Your task to perform on an android device: change text size in settings app Image 0: 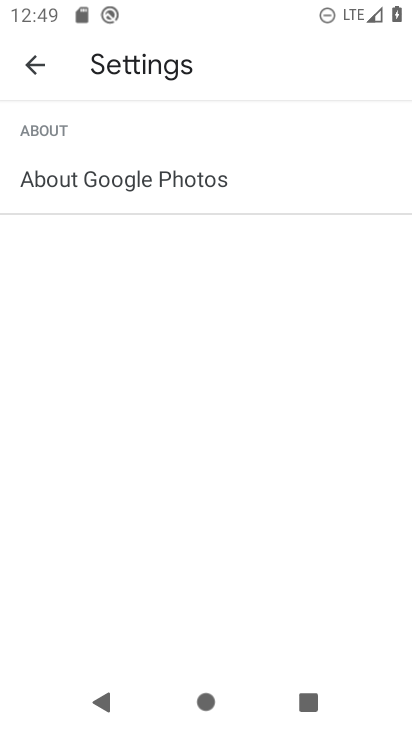
Step 0: press back button
Your task to perform on an android device: change text size in settings app Image 1: 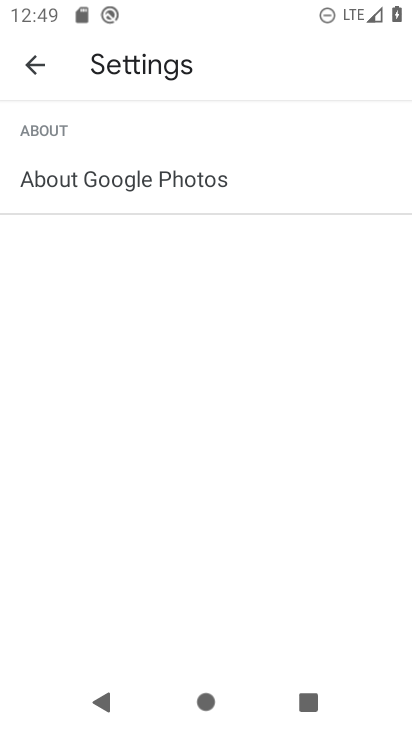
Step 1: press back button
Your task to perform on an android device: change text size in settings app Image 2: 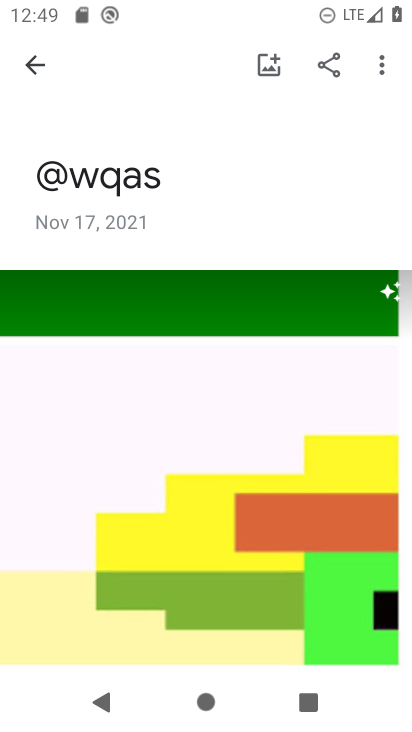
Step 2: press back button
Your task to perform on an android device: change text size in settings app Image 3: 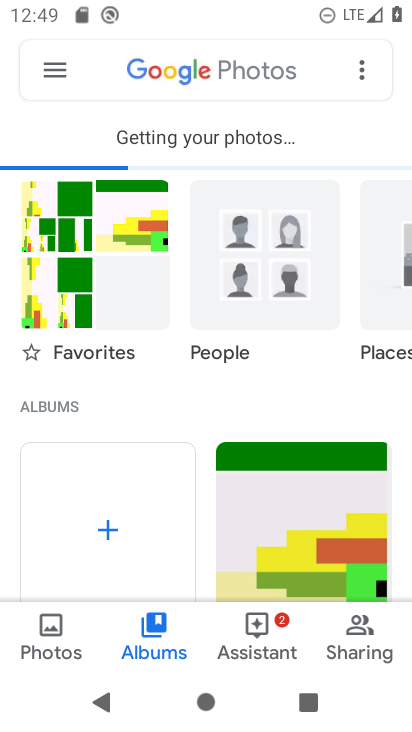
Step 3: press back button
Your task to perform on an android device: change text size in settings app Image 4: 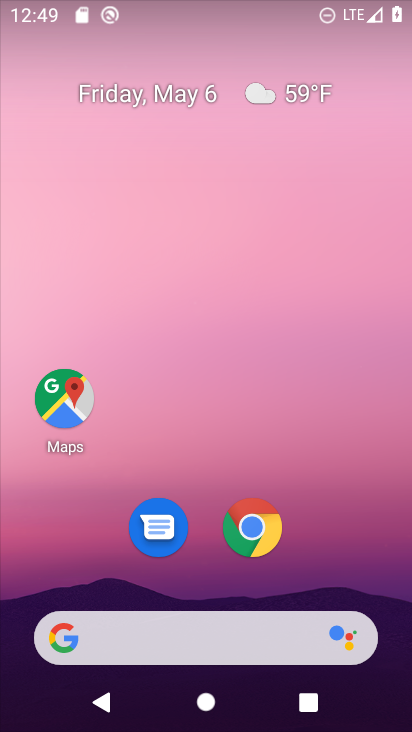
Step 4: drag from (201, 477) to (211, 21)
Your task to perform on an android device: change text size in settings app Image 5: 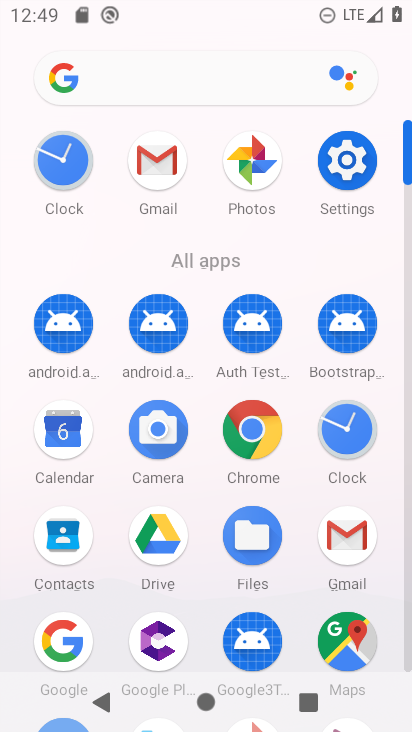
Step 5: click (346, 159)
Your task to perform on an android device: change text size in settings app Image 6: 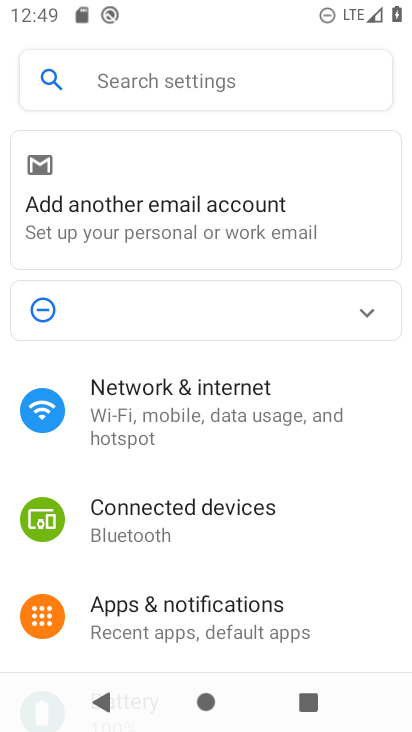
Step 6: drag from (155, 475) to (189, 371)
Your task to perform on an android device: change text size in settings app Image 7: 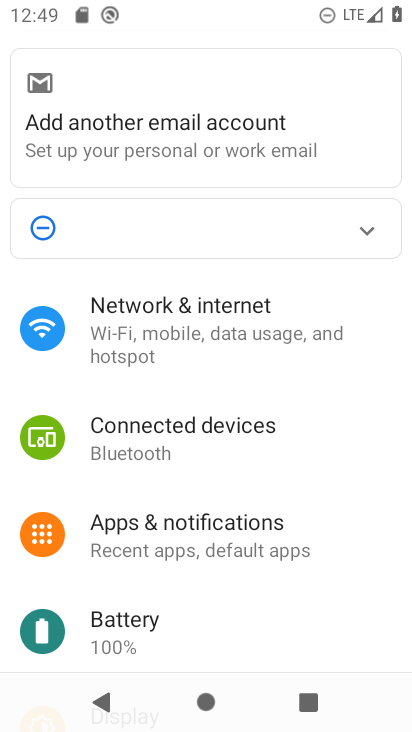
Step 7: drag from (202, 473) to (232, 364)
Your task to perform on an android device: change text size in settings app Image 8: 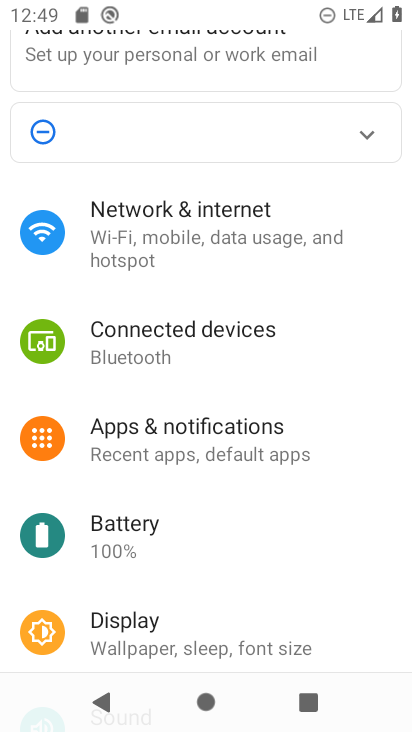
Step 8: drag from (204, 513) to (248, 370)
Your task to perform on an android device: change text size in settings app Image 9: 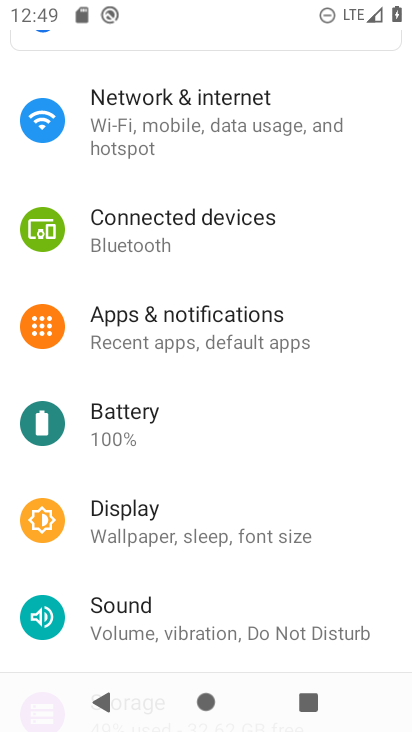
Step 9: drag from (185, 558) to (238, 398)
Your task to perform on an android device: change text size in settings app Image 10: 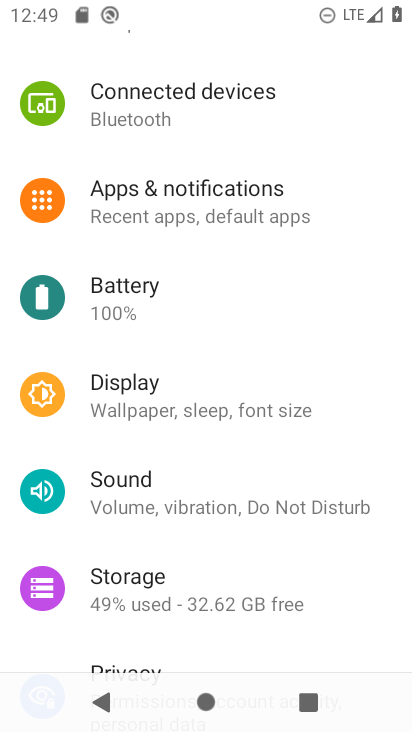
Step 10: drag from (209, 563) to (279, 437)
Your task to perform on an android device: change text size in settings app Image 11: 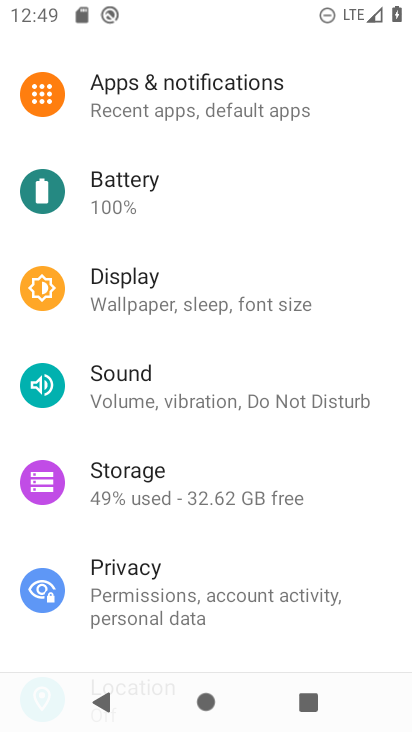
Step 11: drag from (194, 552) to (240, 441)
Your task to perform on an android device: change text size in settings app Image 12: 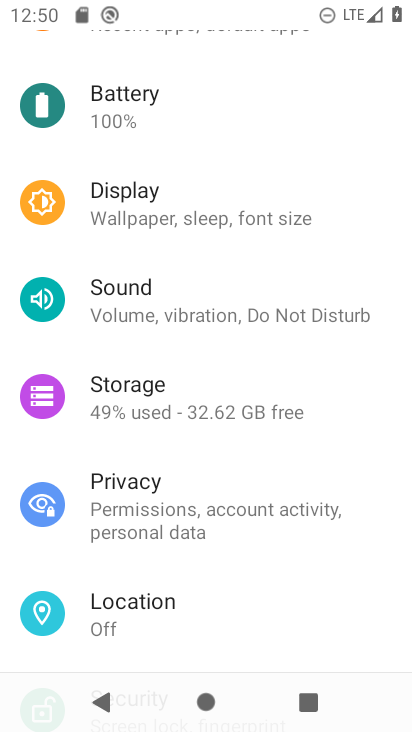
Step 12: drag from (182, 572) to (271, 390)
Your task to perform on an android device: change text size in settings app Image 13: 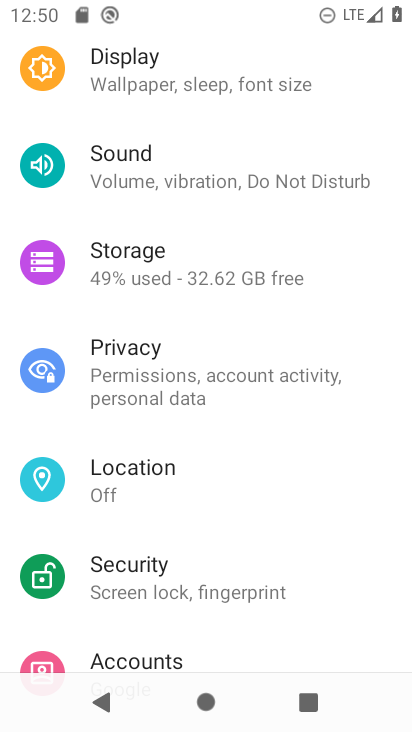
Step 13: drag from (167, 534) to (251, 376)
Your task to perform on an android device: change text size in settings app Image 14: 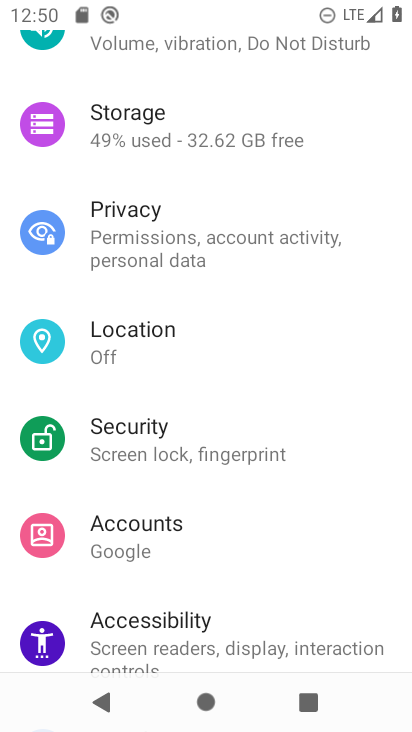
Step 14: drag from (208, 523) to (263, 370)
Your task to perform on an android device: change text size in settings app Image 15: 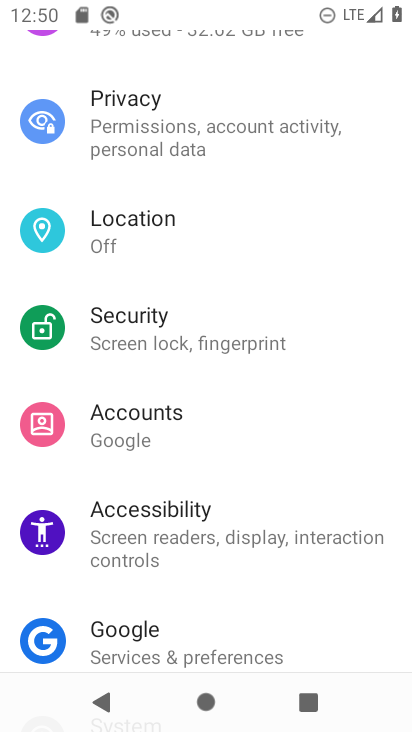
Step 15: click (151, 510)
Your task to perform on an android device: change text size in settings app Image 16: 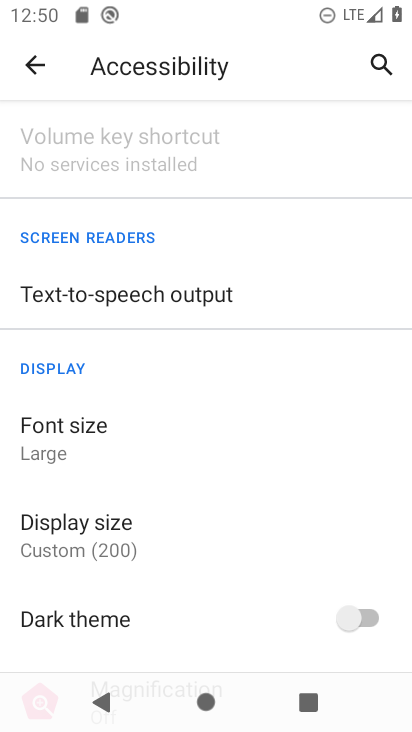
Step 16: click (72, 440)
Your task to perform on an android device: change text size in settings app Image 17: 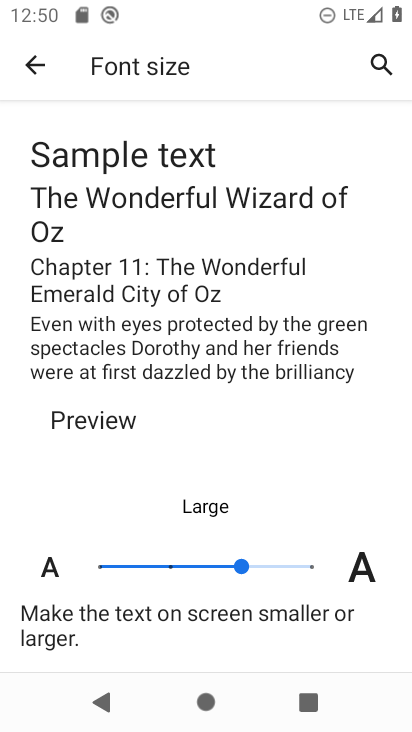
Step 17: click (176, 564)
Your task to perform on an android device: change text size in settings app Image 18: 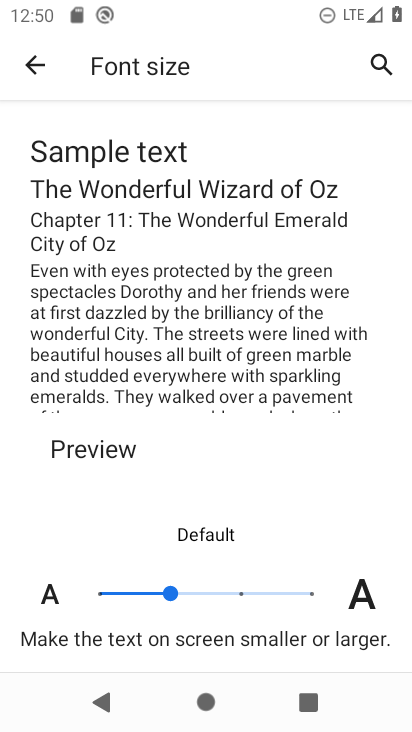
Step 18: task complete